Your task to perform on an android device: toggle pop-ups in chrome Image 0: 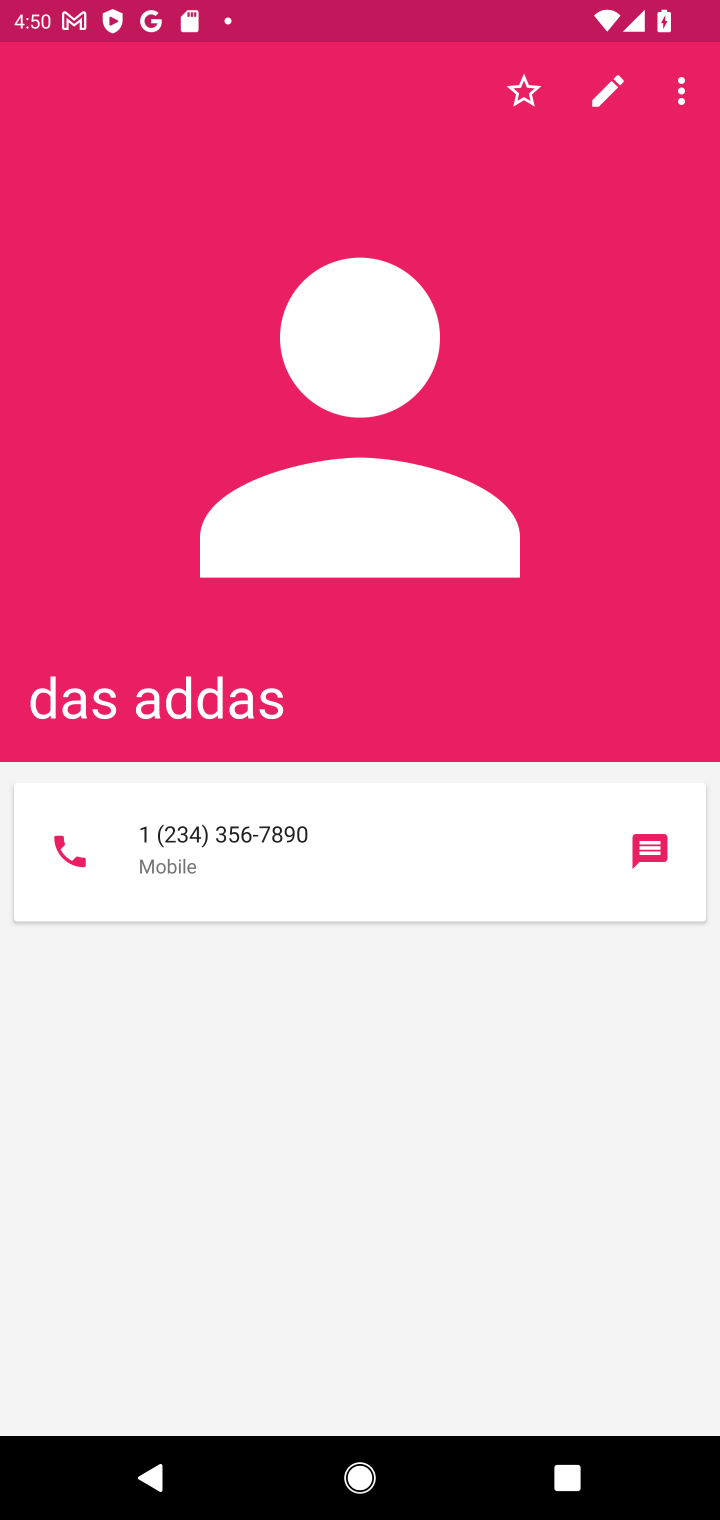
Step 0: press home button
Your task to perform on an android device: toggle pop-ups in chrome Image 1: 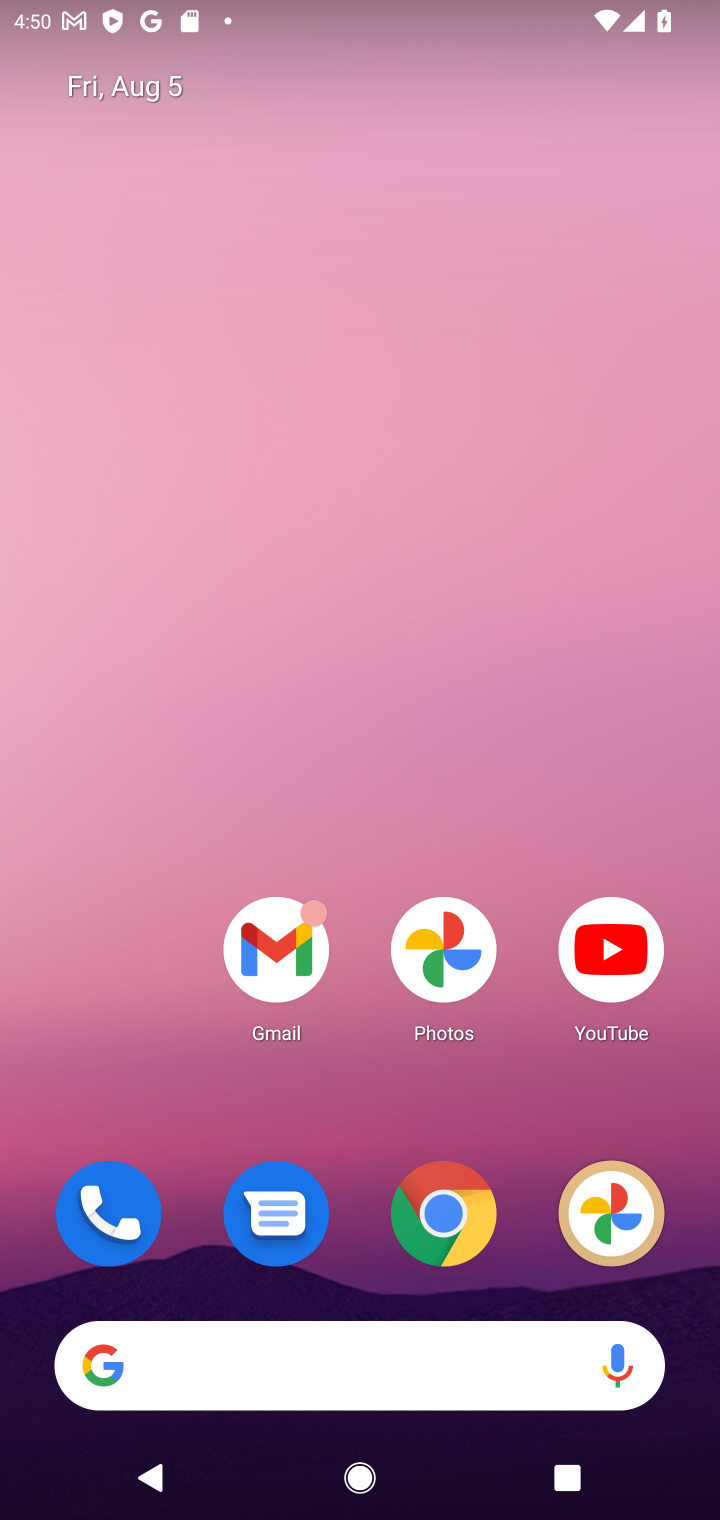
Step 1: click (445, 1253)
Your task to perform on an android device: toggle pop-ups in chrome Image 2: 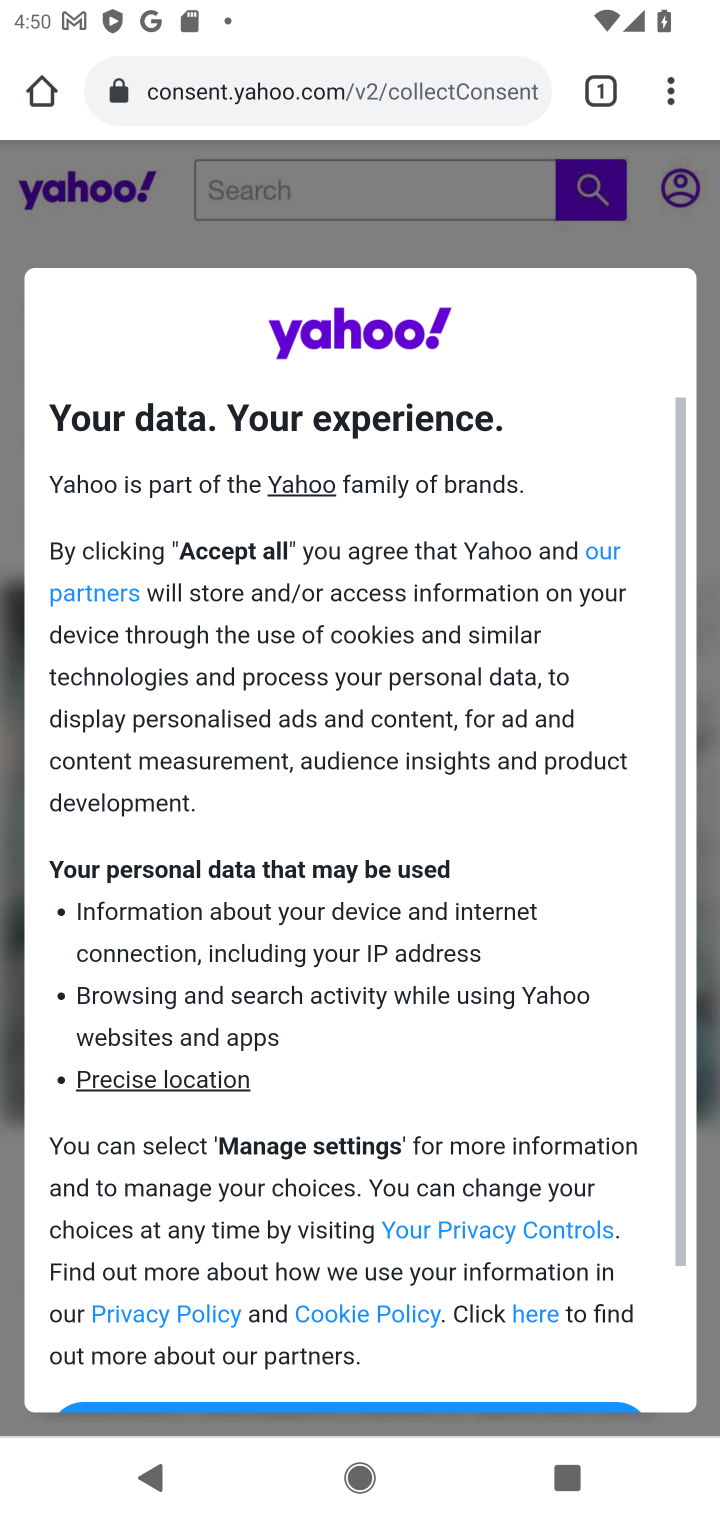
Step 2: click (667, 78)
Your task to perform on an android device: toggle pop-ups in chrome Image 3: 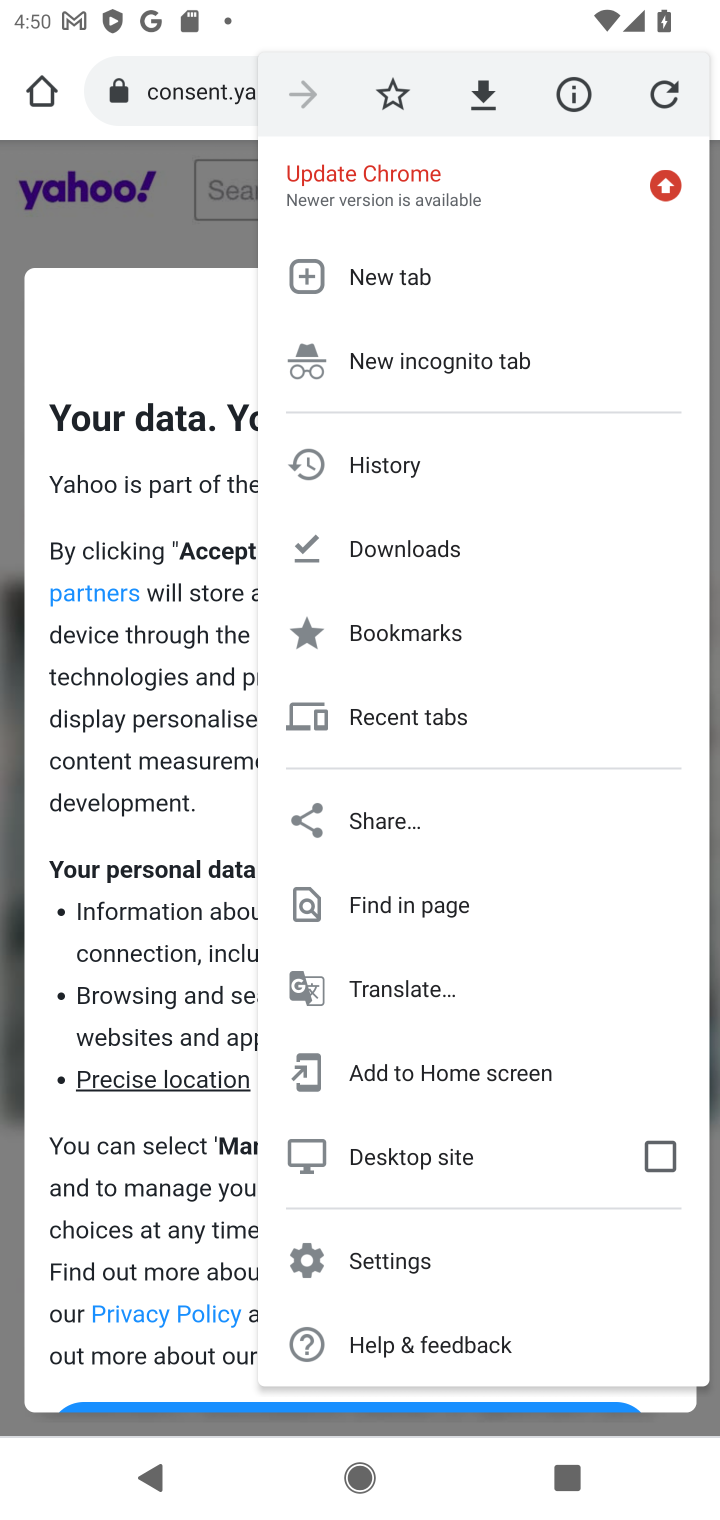
Step 3: click (354, 1276)
Your task to perform on an android device: toggle pop-ups in chrome Image 4: 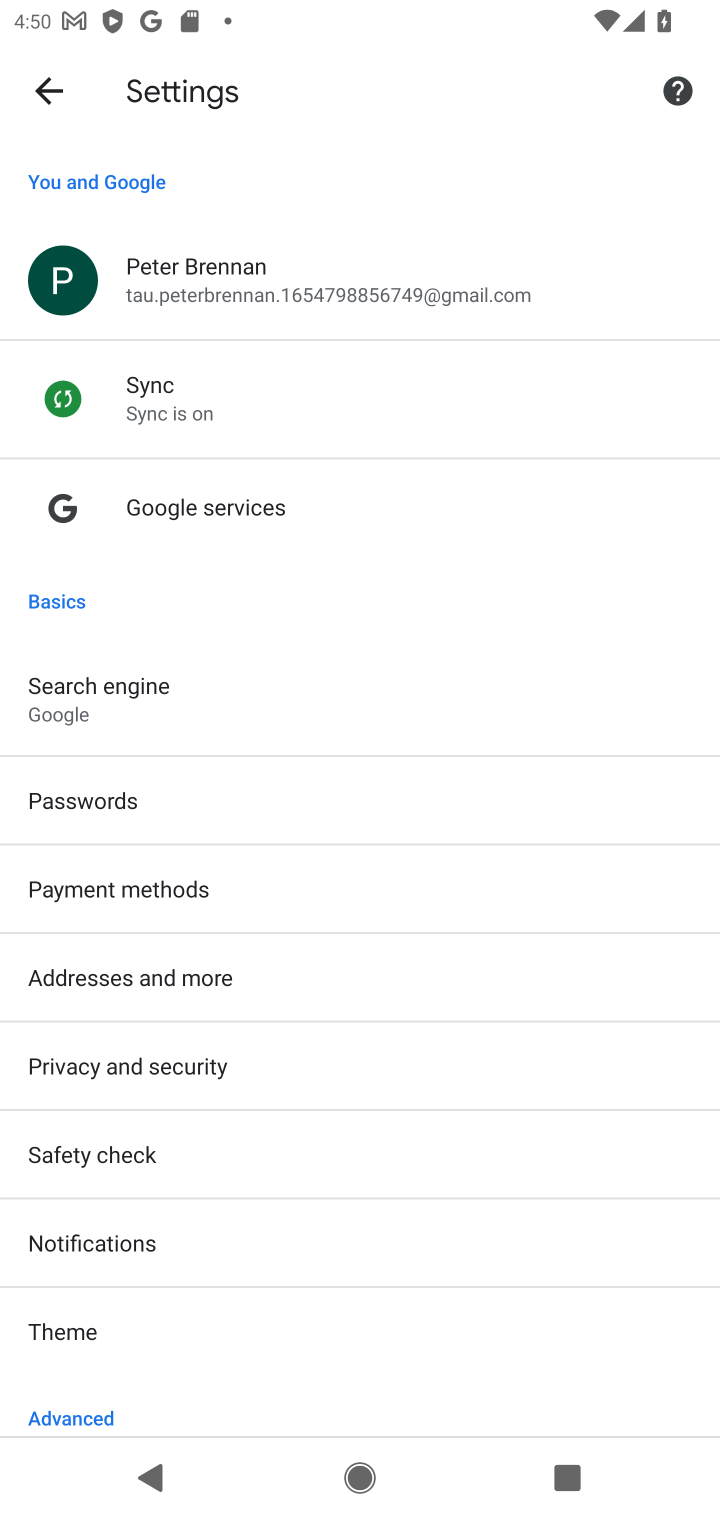
Step 4: drag from (292, 1258) to (314, 385)
Your task to perform on an android device: toggle pop-ups in chrome Image 5: 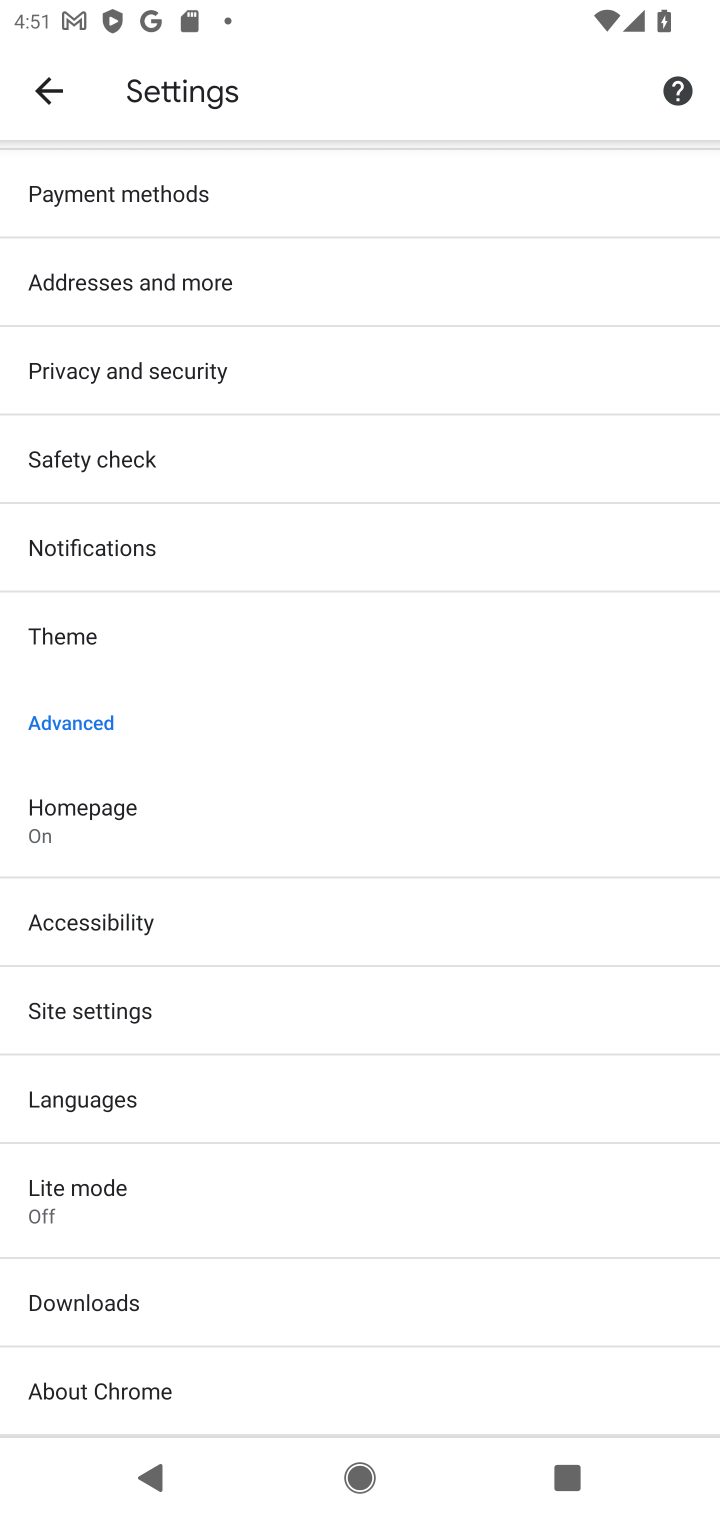
Step 5: click (286, 1019)
Your task to perform on an android device: toggle pop-ups in chrome Image 6: 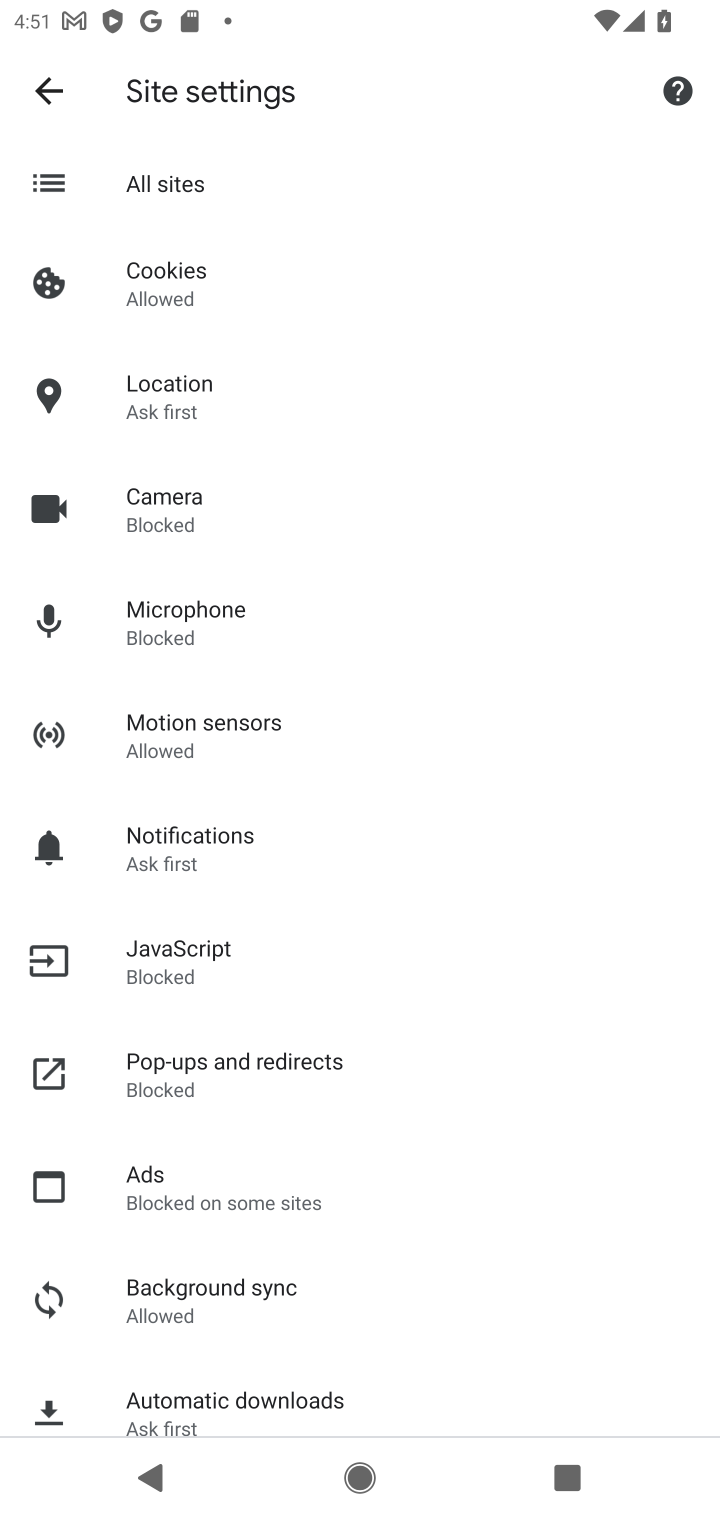
Step 6: click (313, 1122)
Your task to perform on an android device: toggle pop-ups in chrome Image 7: 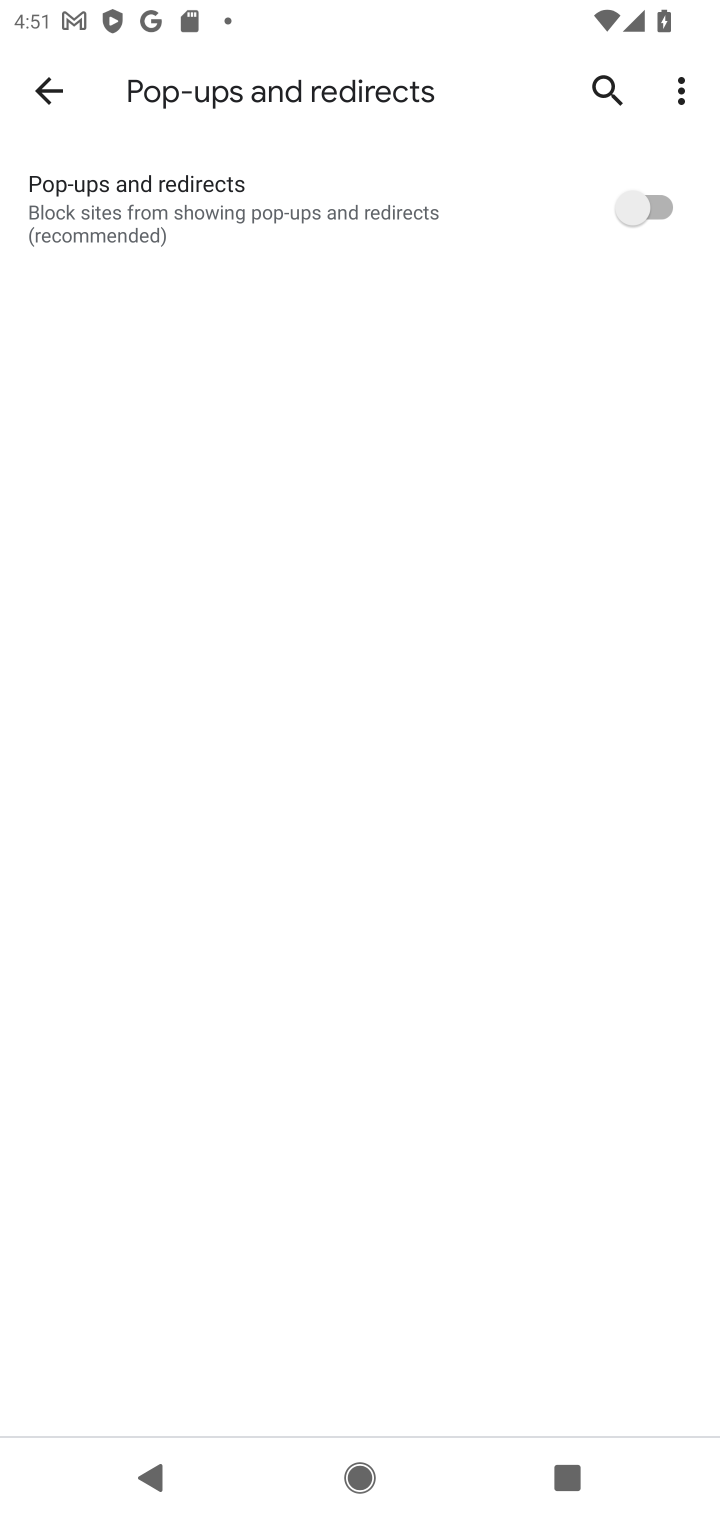
Step 7: click (661, 202)
Your task to perform on an android device: toggle pop-ups in chrome Image 8: 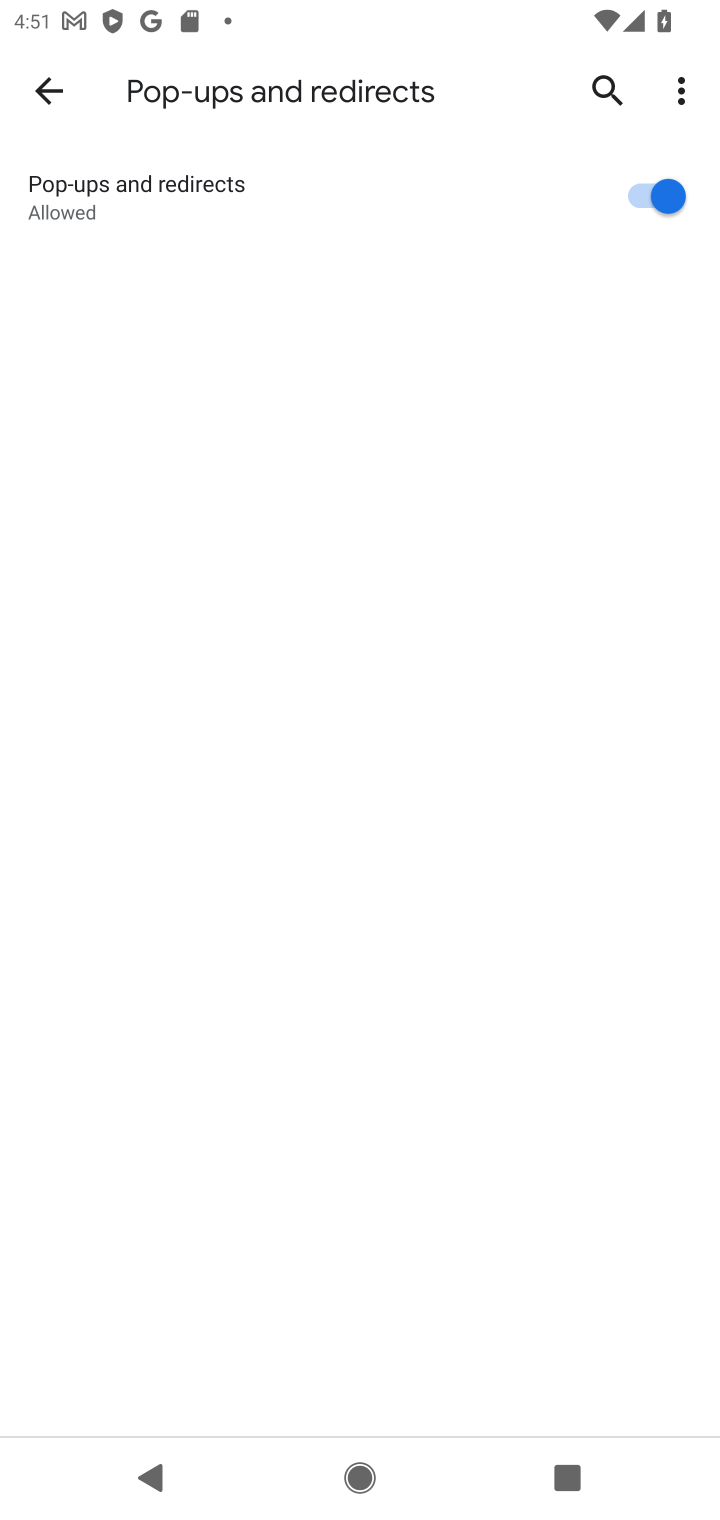
Step 8: task complete